Your task to perform on an android device: Open the Play Movies app and select the watchlist tab. Image 0: 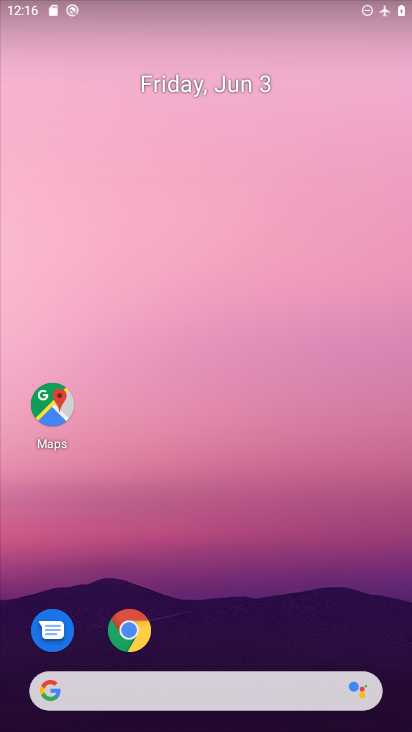
Step 0: drag from (243, 651) to (205, 143)
Your task to perform on an android device: Open the Play Movies app and select the watchlist tab. Image 1: 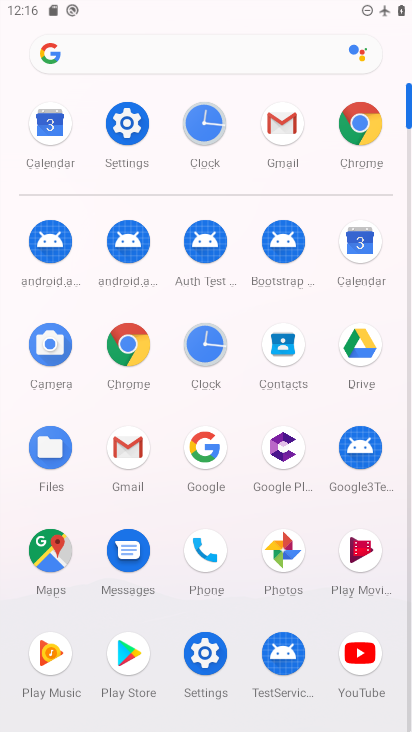
Step 1: click (366, 541)
Your task to perform on an android device: Open the Play Movies app and select the watchlist tab. Image 2: 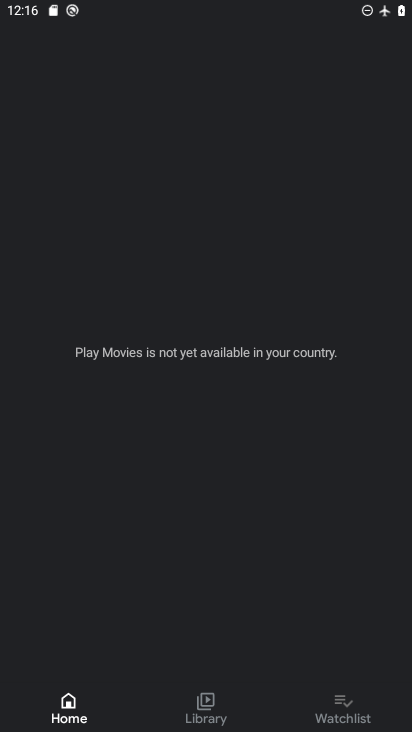
Step 2: click (349, 693)
Your task to perform on an android device: Open the Play Movies app and select the watchlist tab. Image 3: 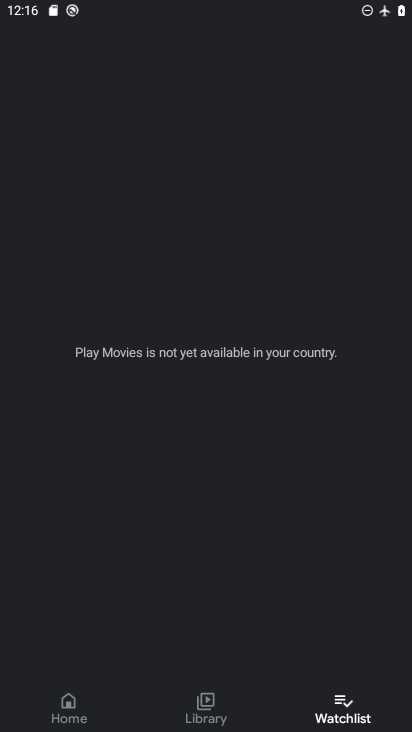
Step 3: task complete